Your task to perform on an android device: check google app version Image 0: 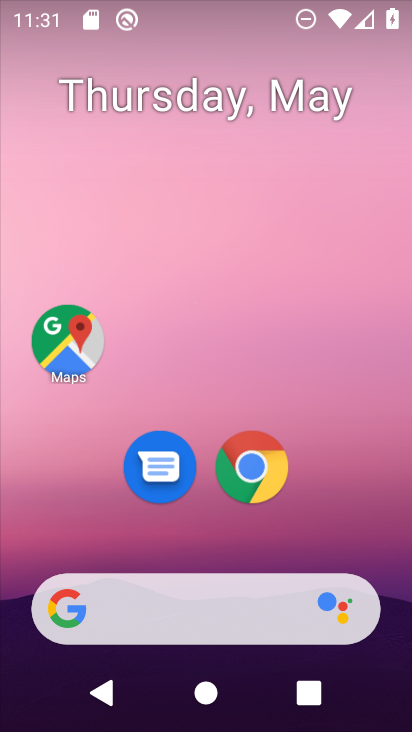
Step 0: drag from (185, 556) to (275, 128)
Your task to perform on an android device: check google app version Image 1: 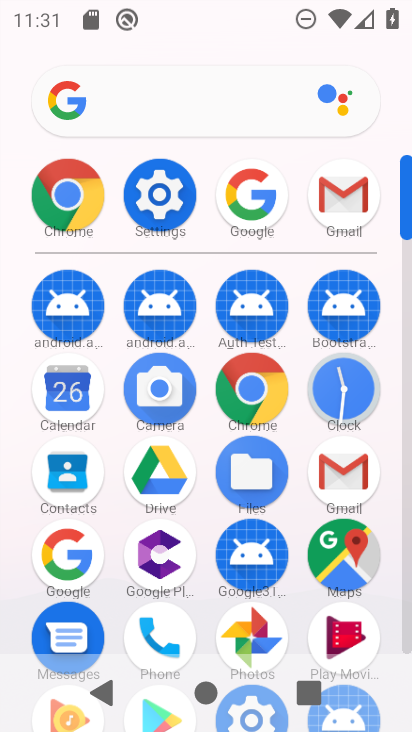
Step 1: click (60, 567)
Your task to perform on an android device: check google app version Image 2: 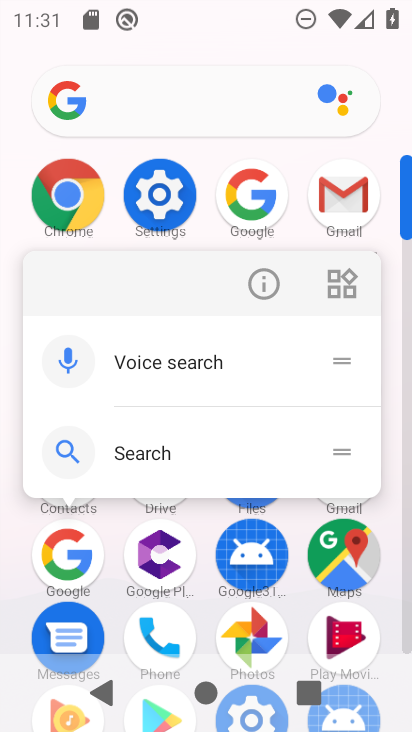
Step 2: click (76, 548)
Your task to perform on an android device: check google app version Image 3: 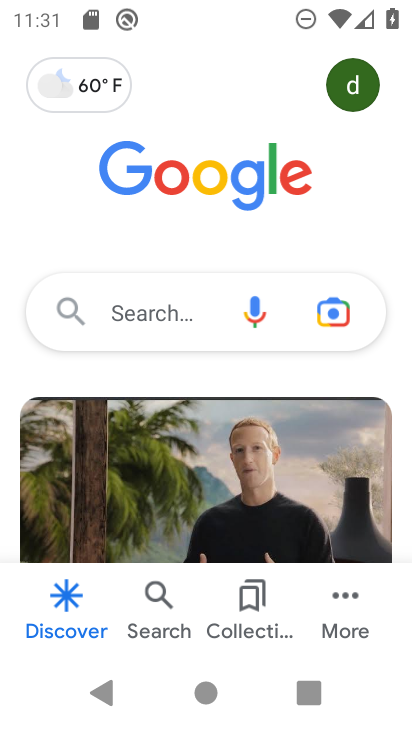
Step 3: click (332, 622)
Your task to perform on an android device: check google app version Image 4: 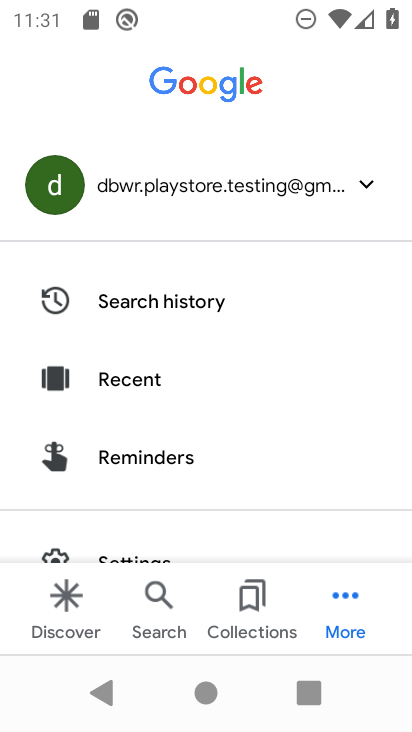
Step 4: drag from (190, 480) to (268, 232)
Your task to perform on an android device: check google app version Image 5: 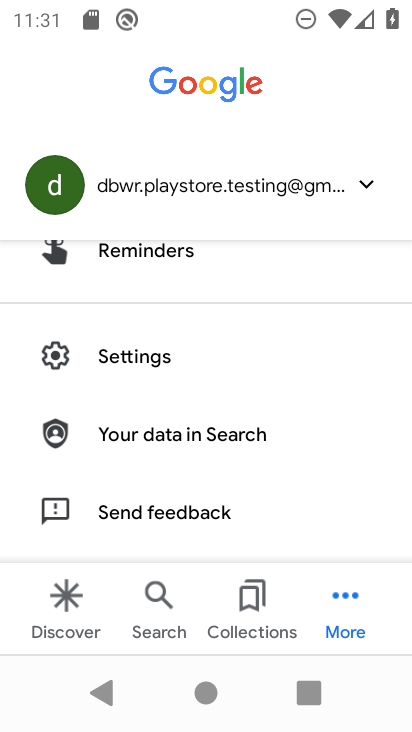
Step 5: click (191, 361)
Your task to perform on an android device: check google app version Image 6: 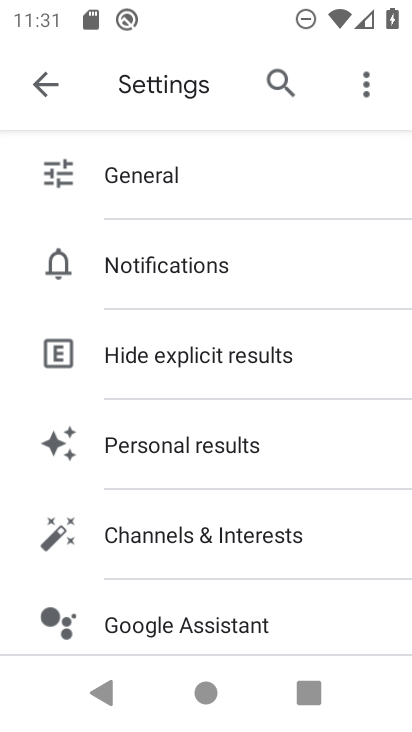
Step 6: drag from (223, 622) to (212, 205)
Your task to perform on an android device: check google app version Image 7: 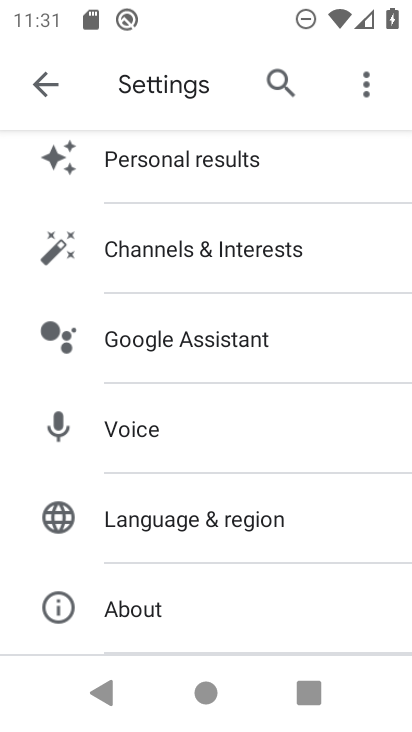
Step 7: click (188, 614)
Your task to perform on an android device: check google app version Image 8: 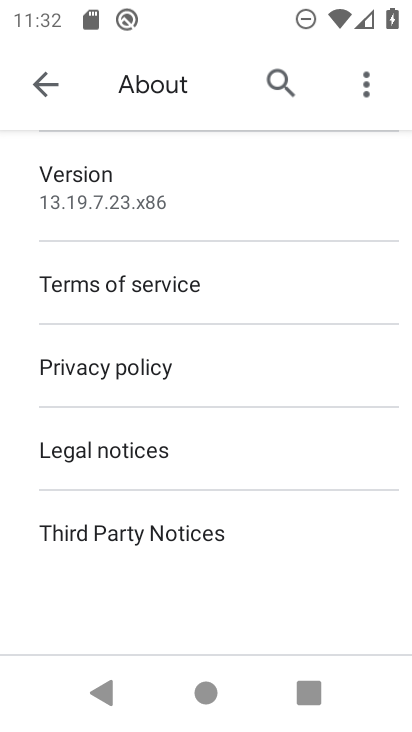
Step 8: task complete